Your task to perform on an android device: Go to location settings Image 0: 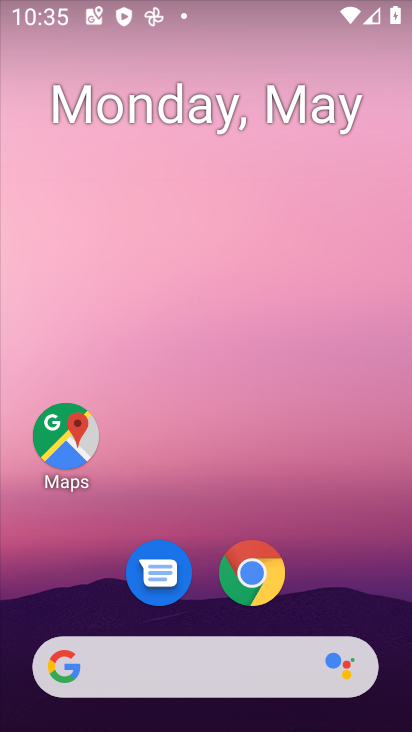
Step 0: drag from (330, 611) to (242, 37)
Your task to perform on an android device: Go to location settings Image 1: 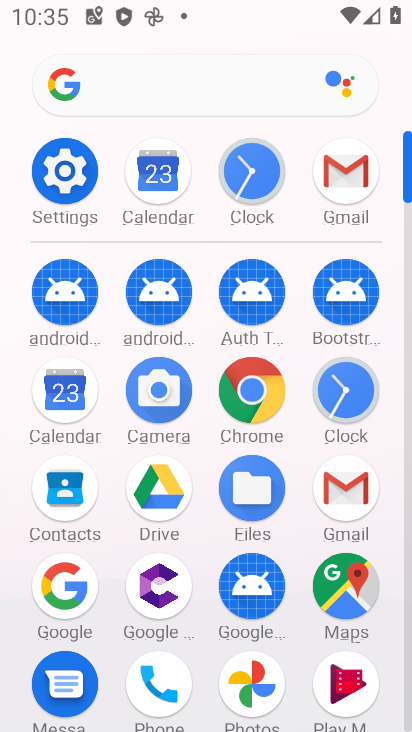
Step 1: click (50, 204)
Your task to perform on an android device: Go to location settings Image 2: 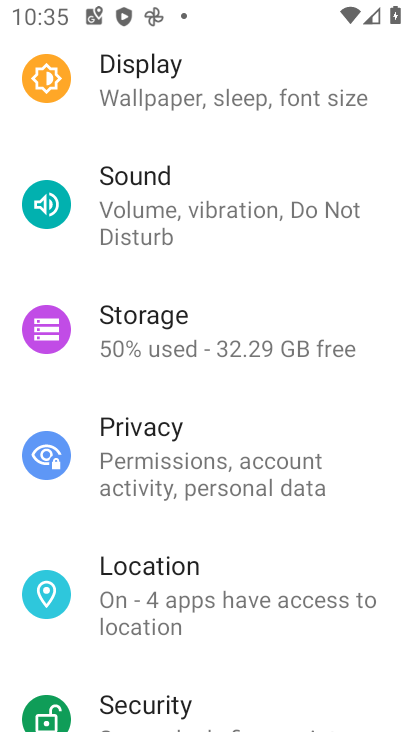
Step 2: click (205, 564)
Your task to perform on an android device: Go to location settings Image 3: 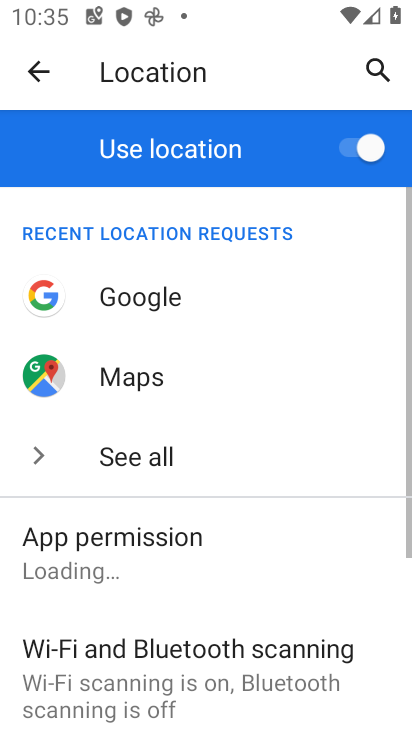
Step 3: task complete